Your task to perform on an android device: add a contact Image 0: 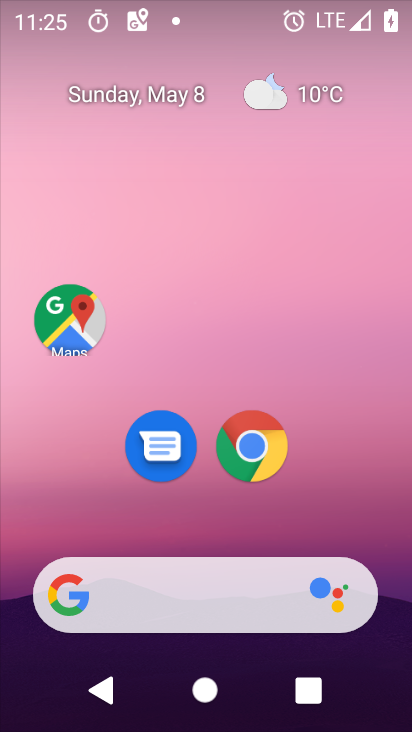
Step 0: drag from (329, 516) to (306, 77)
Your task to perform on an android device: add a contact Image 1: 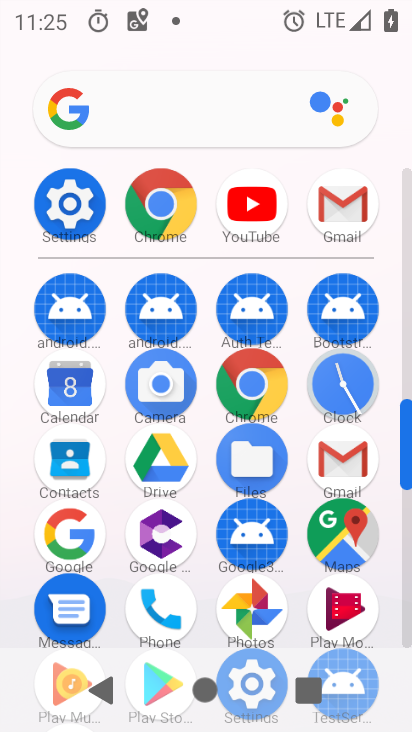
Step 1: click (64, 470)
Your task to perform on an android device: add a contact Image 2: 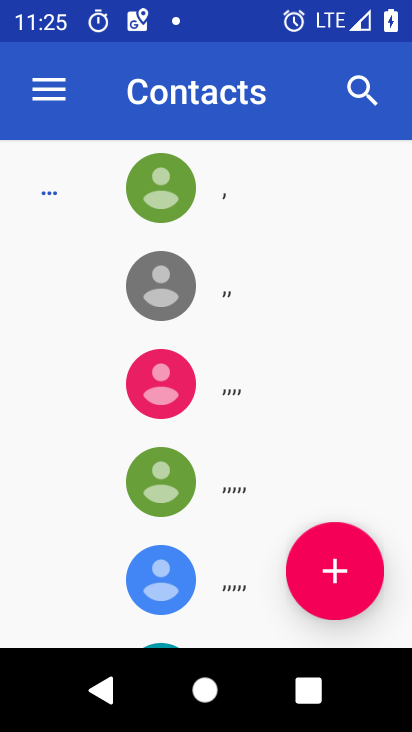
Step 2: click (355, 565)
Your task to perform on an android device: add a contact Image 3: 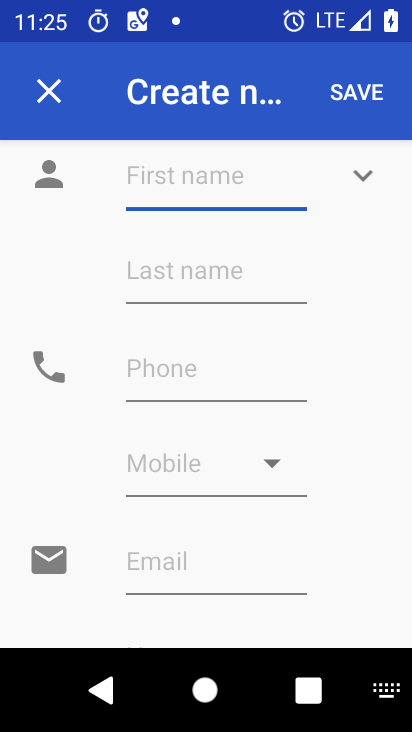
Step 3: click (158, 192)
Your task to perform on an android device: add a contact Image 4: 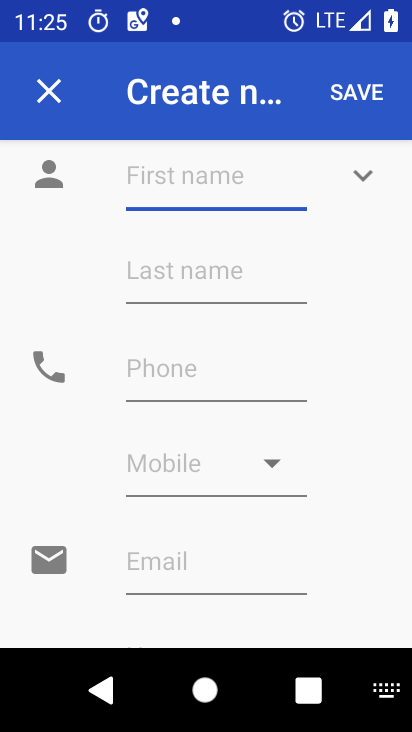
Step 4: type "tinu"
Your task to perform on an android device: add a contact Image 5: 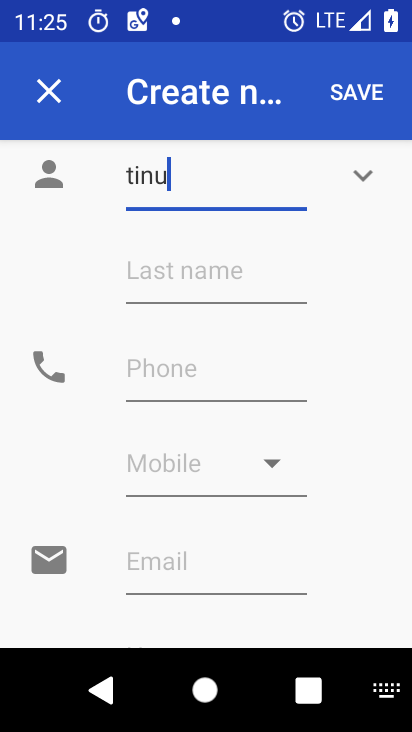
Step 5: click (229, 387)
Your task to perform on an android device: add a contact Image 6: 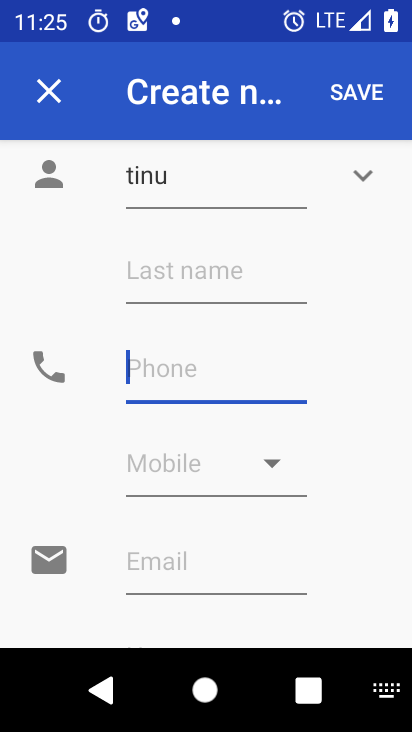
Step 6: type "98765432"
Your task to perform on an android device: add a contact Image 7: 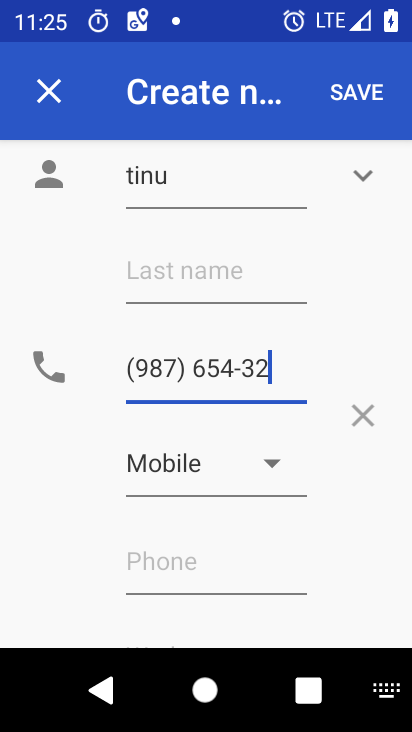
Step 7: click (373, 102)
Your task to perform on an android device: add a contact Image 8: 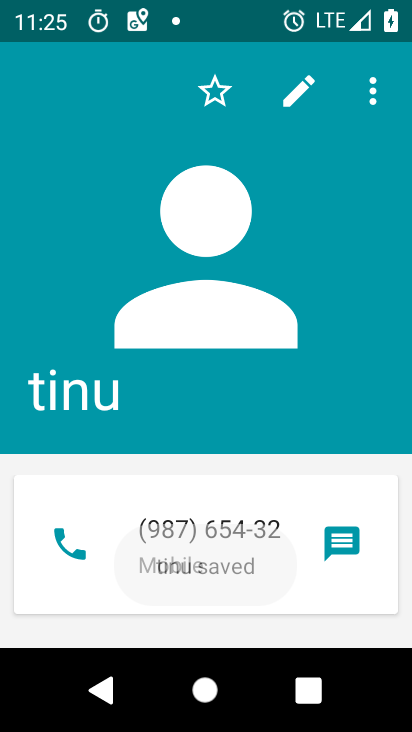
Step 8: task complete